Your task to perform on an android device: Open Chrome and go to settings Image 0: 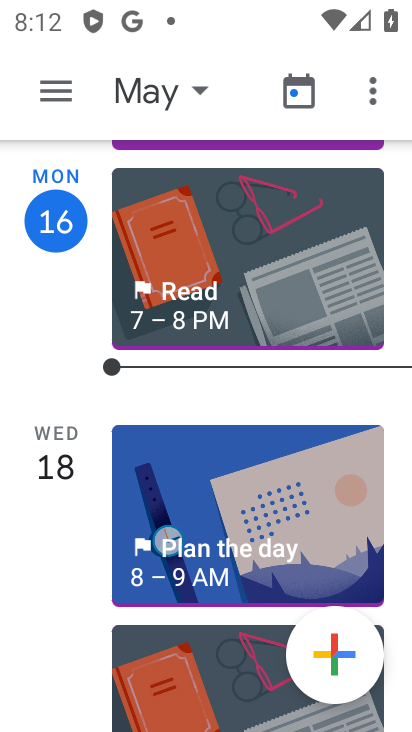
Step 0: drag from (274, 681) to (355, 530)
Your task to perform on an android device: Open Chrome and go to settings Image 1: 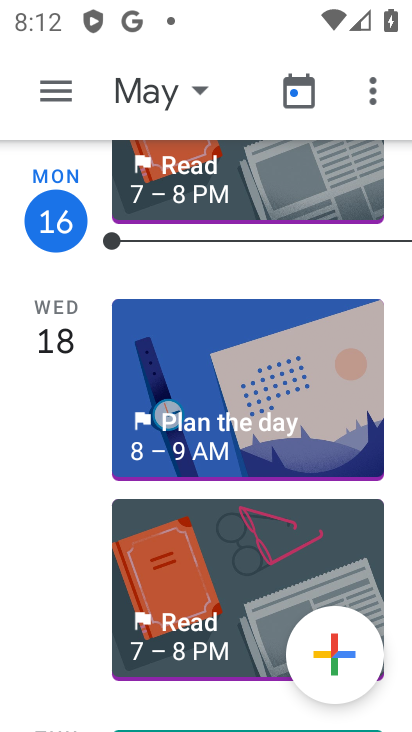
Step 1: press home button
Your task to perform on an android device: Open Chrome and go to settings Image 2: 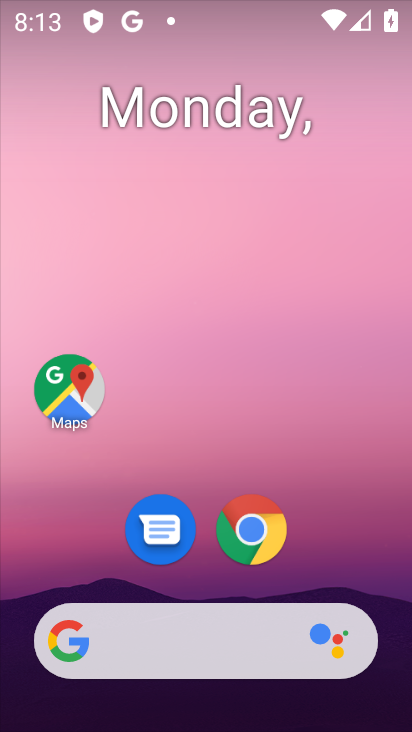
Step 2: drag from (254, 687) to (269, 258)
Your task to perform on an android device: Open Chrome and go to settings Image 3: 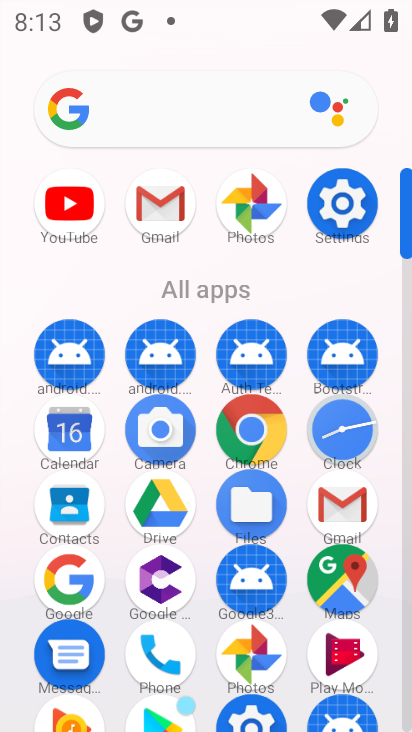
Step 3: click (240, 418)
Your task to perform on an android device: Open Chrome and go to settings Image 4: 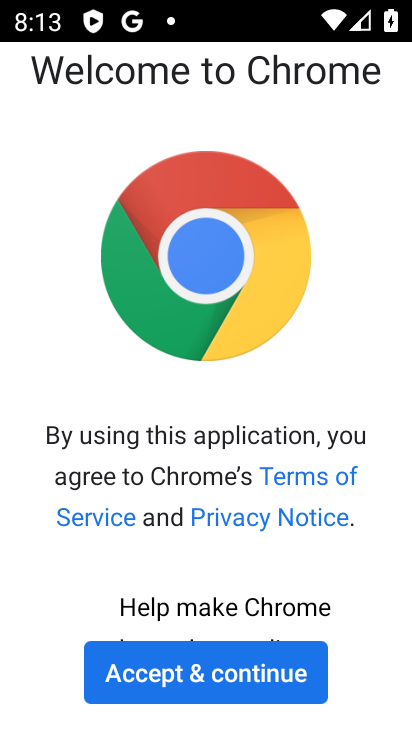
Step 4: click (212, 676)
Your task to perform on an android device: Open Chrome and go to settings Image 5: 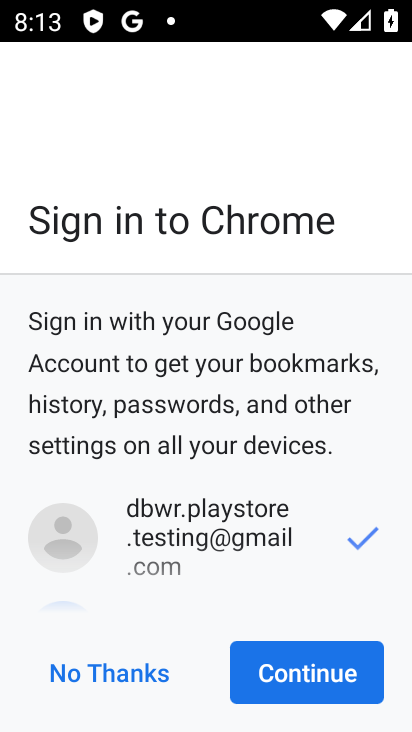
Step 5: click (260, 659)
Your task to perform on an android device: Open Chrome and go to settings Image 6: 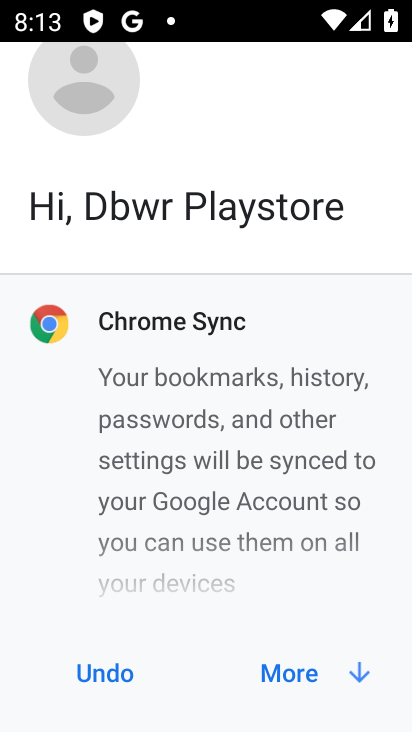
Step 6: click (337, 687)
Your task to perform on an android device: Open Chrome and go to settings Image 7: 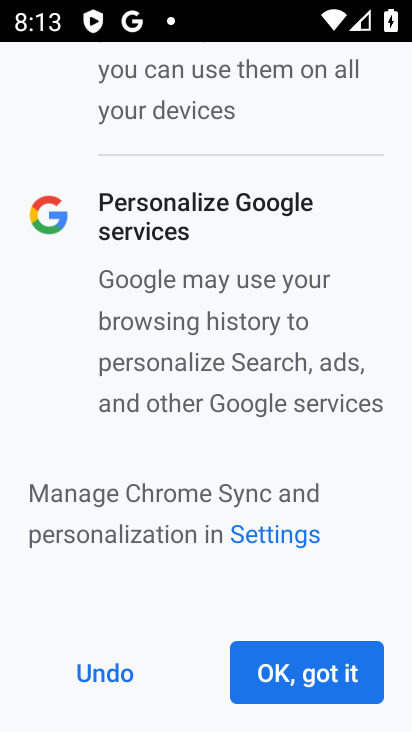
Step 7: click (351, 670)
Your task to perform on an android device: Open Chrome and go to settings Image 8: 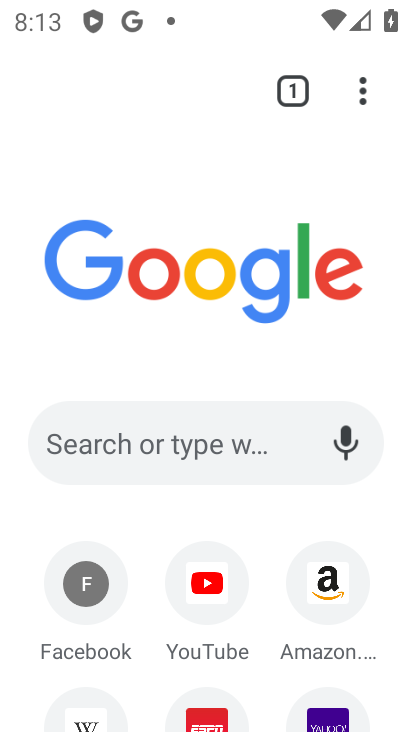
Step 8: click (366, 105)
Your task to perform on an android device: Open Chrome and go to settings Image 9: 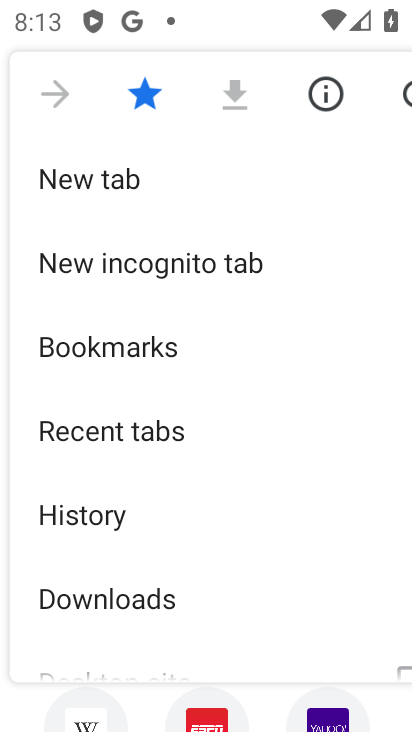
Step 9: drag from (127, 551) to (213, 265)
Your task to perform on an android device: Open Chrome and go to settings Image 10: 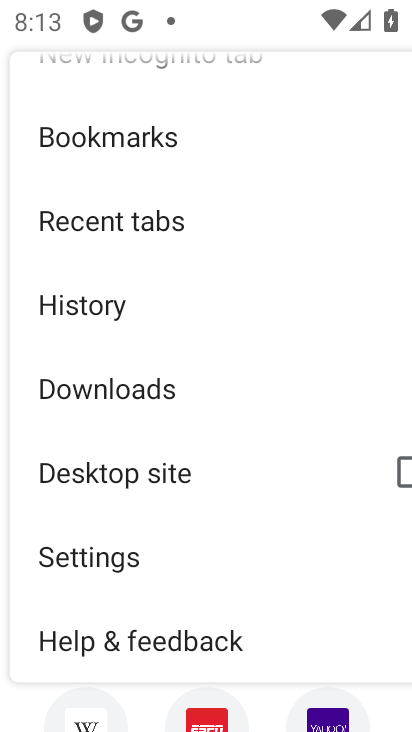
Step 10: click (121, 543)
Your task to perform on an android device: Open Chrome and go to settings Image 11: 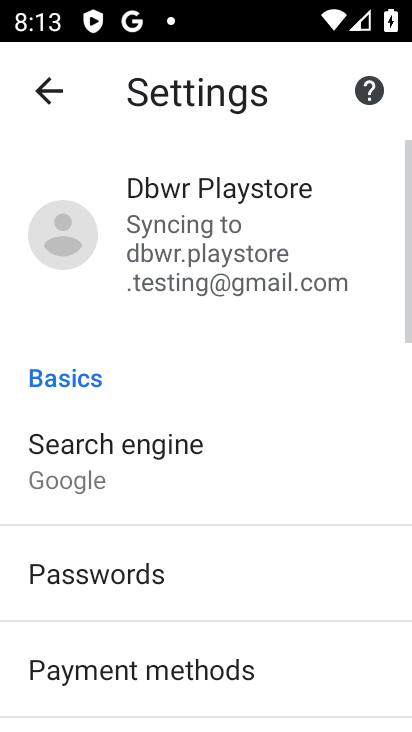
Step 11: task complete